Your task to perform on an android device: uninstall "Upside-Cash back on gas & food" Image 0: 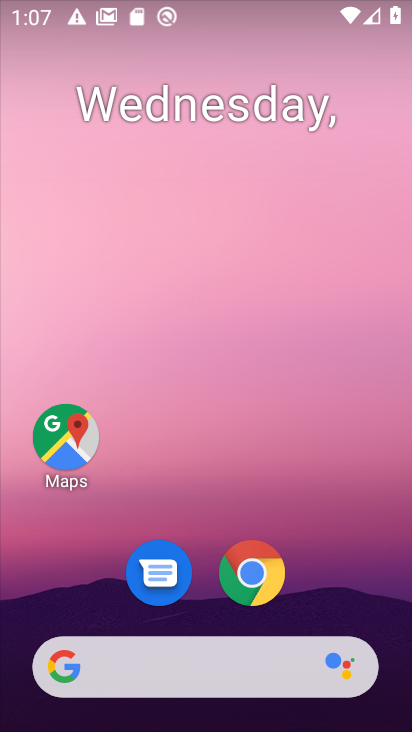
Step 0: drag from (218, 612) to (257, 8)
Your task to perform on an android device: uninstall "Upside-Cash back on gas & food" Image 1: 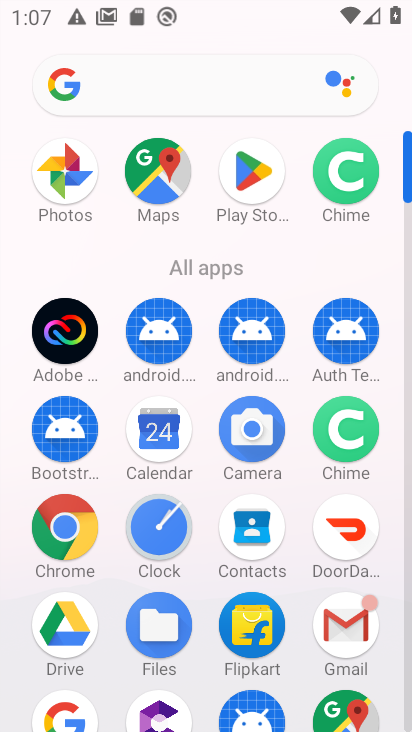
Step 1: click (250, 162)
Your task to perform on an android device: uninstall "Upside-Cash back on gas & food" Image 2: 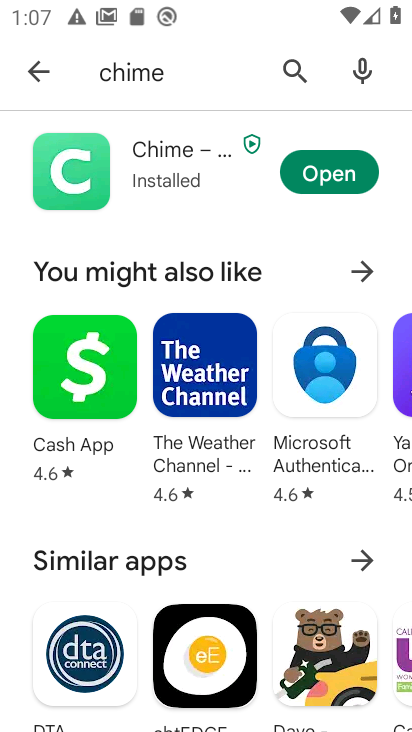
Step 2: click (291, 69)
Your task to perform on an android device: uninstall "Upside-Cash back on gas & food" Image 3: 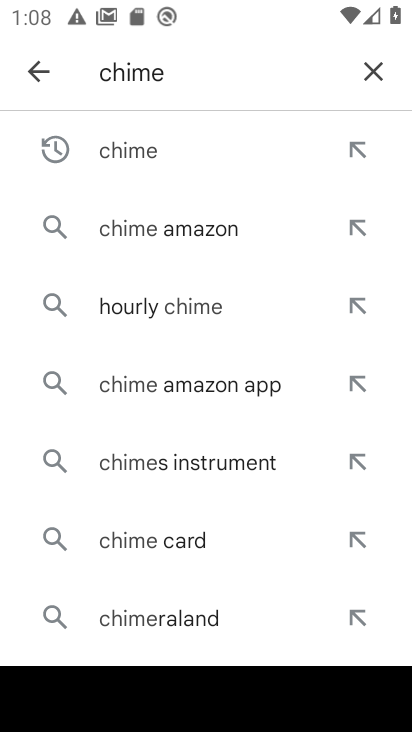
Step 3: click (381, 71)
Your task to perform on an android device: uninstall "Upside-Cash back on gas & food" Image 4: 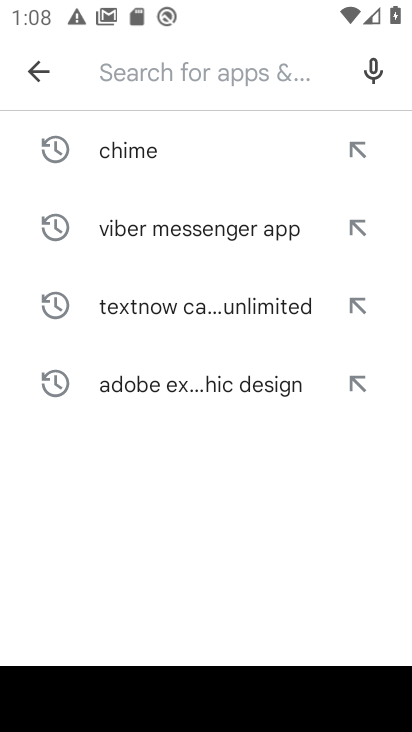
Step 4: type "Upside-Cash back on gas & food"
Your task to perform on an android device: uninstall "Upside-Cash back on gas & food" Image 5: 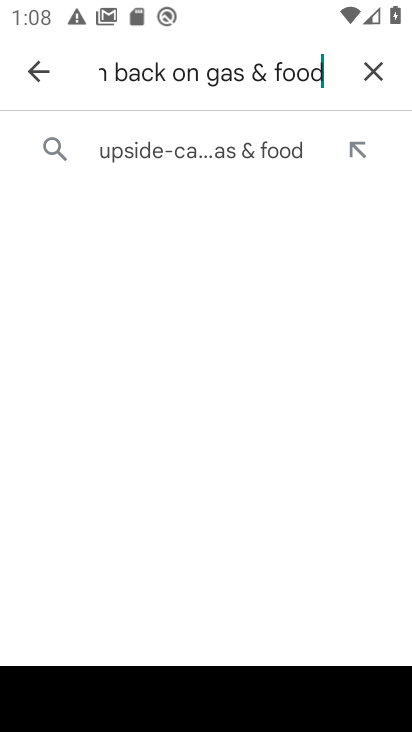
Step 5: click (213, 148)
Your task to perform on an android device: uninstall "Upside-Cash back on gas & food" Image 6: 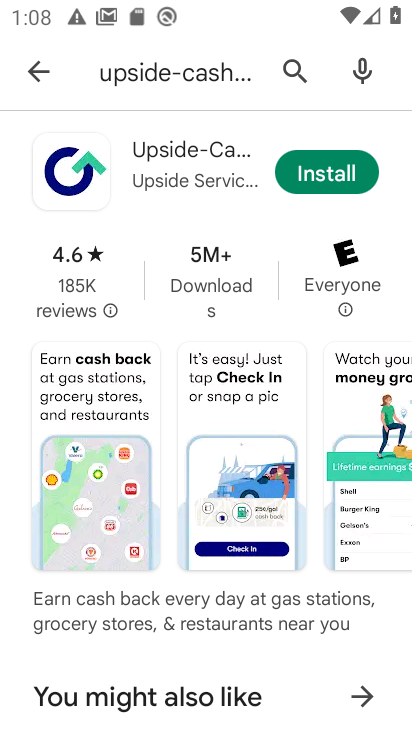
Step 6: click (329, 167)
Your task to perform on an android device: uninstall "Upside-Cash back on gas & food" Image 7: 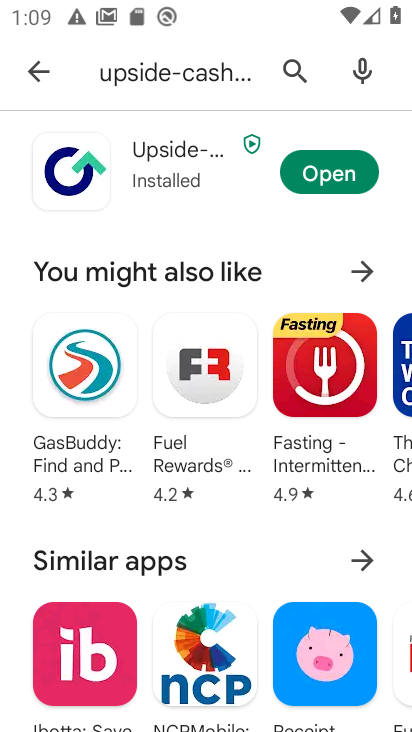
Step 7: task complete